Your task to perform on an android device: check the backup settings in the google photos Image 0: 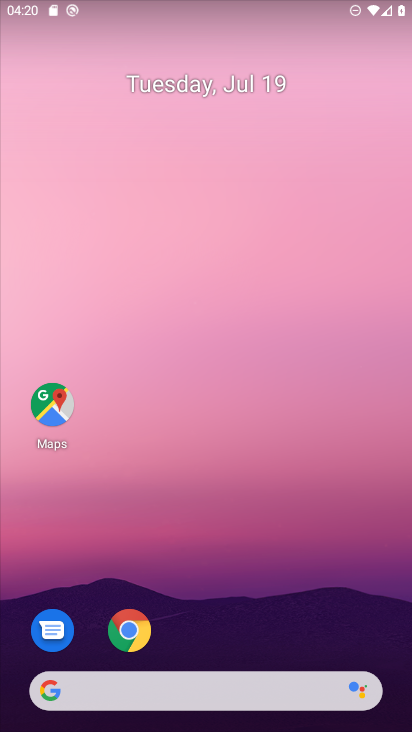
Step 0: drag from (250, 657) to (195, 239)
Your task to perform on an android device: check the backup settings in the google photos Image 1: 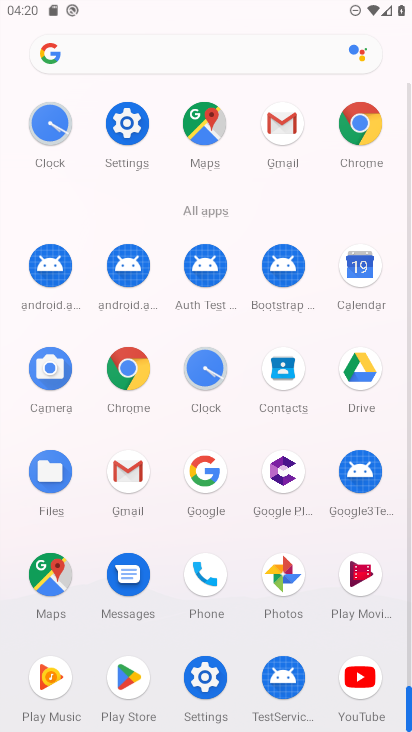
Step 1: click (279, 570)
Your task to perform on an android device: check the backup settings in the google photos Image 2: 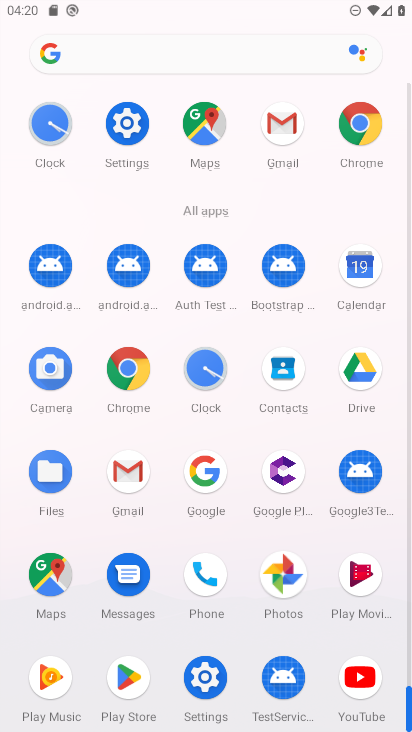
Step 2: click (281, 572)
Your task to perform on an android device: check the backup settings in the google photos Image 3: 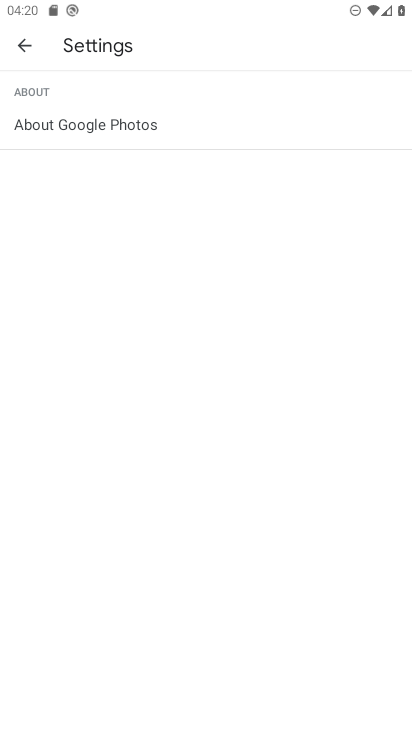
Step 3: click (30, 49)
Your task to perform on an android device: check the backup settings in the google photos Image 4: 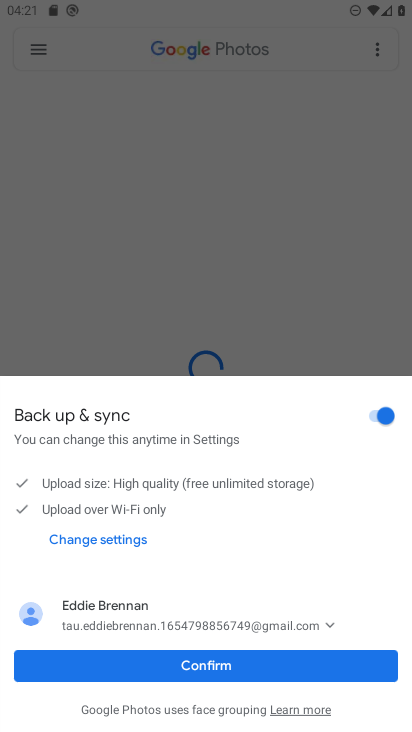
Step 4: click (140, 171)
Your task to perform on an android device: check the backup settings in the google photos Image 5: 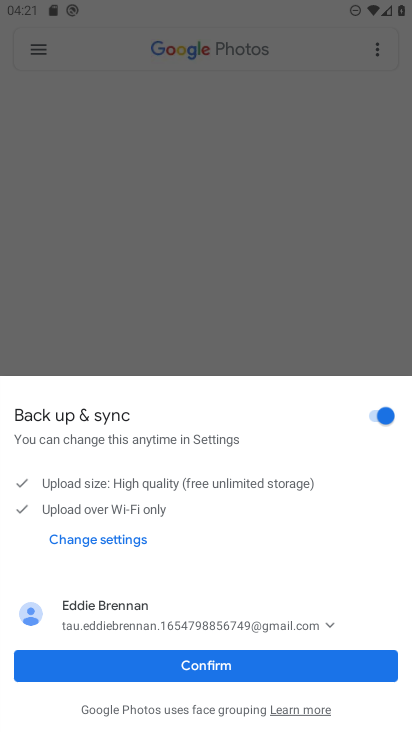
Step 5: click (153, 162)
Your task to perform on an android device: check the backup settings in the google photos Image 6: 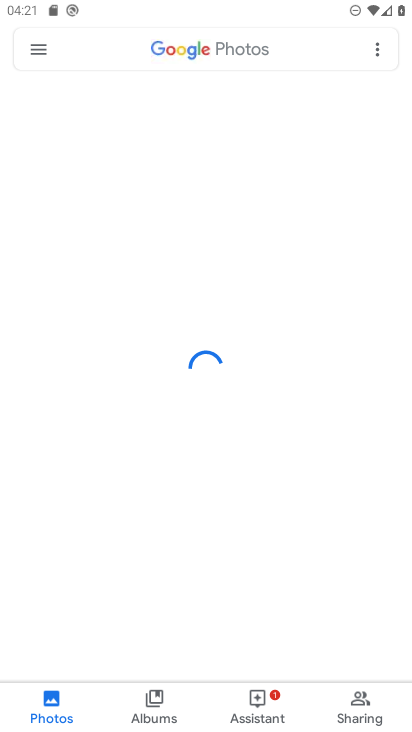
Step 6: click (162, 165)
Your task to perform on an android device: check the backup settings in the google photos Image 7: 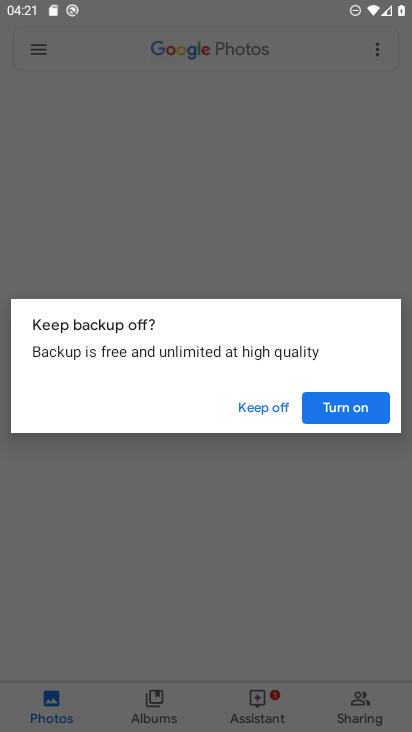
Step 7: click (162, 165)
Your task to perform on an android device: check the backup settings in the google photos Image 8: 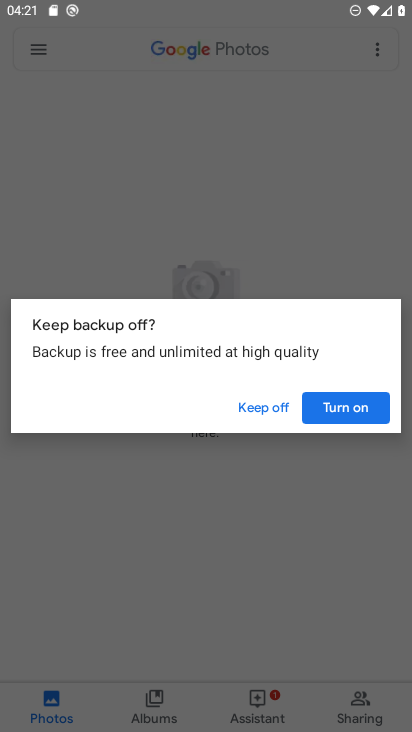
Step 8: click (170, 224)
Your task to perform on an android device: check the backup settings in the google photos Image 9: 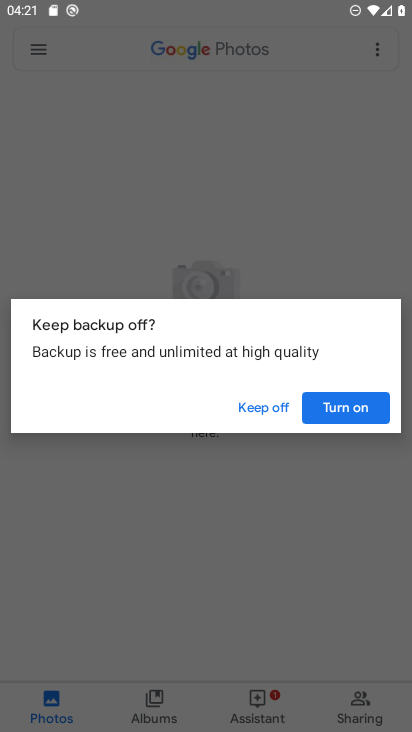
Step 9: click (200, 212)
Your task to perform on an android device: check the backup settings in the google photos Image 10: 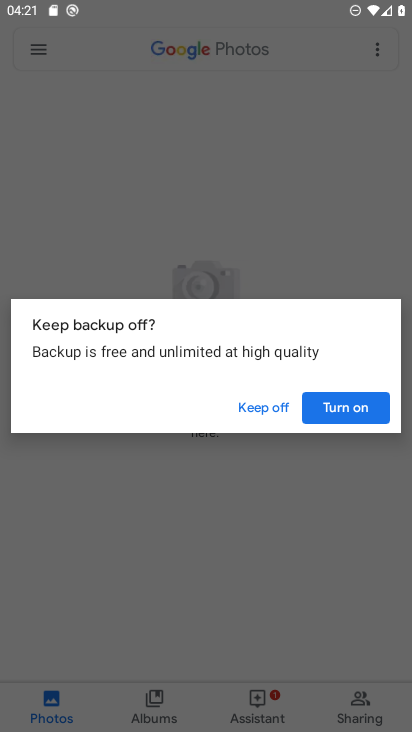
Step 10: click (247, 404)
Your task to perform on an android device: check the backup settings in the google photos Image 11: 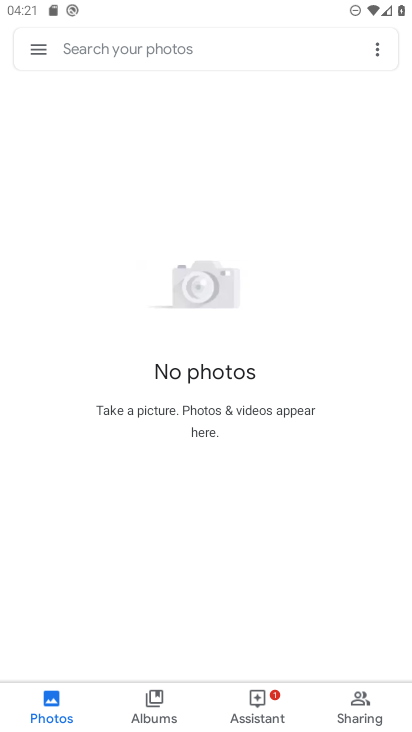
Step 11: click (41, 51)
Your task to perform on an android device: check the backup settings in the google photos Image 12: 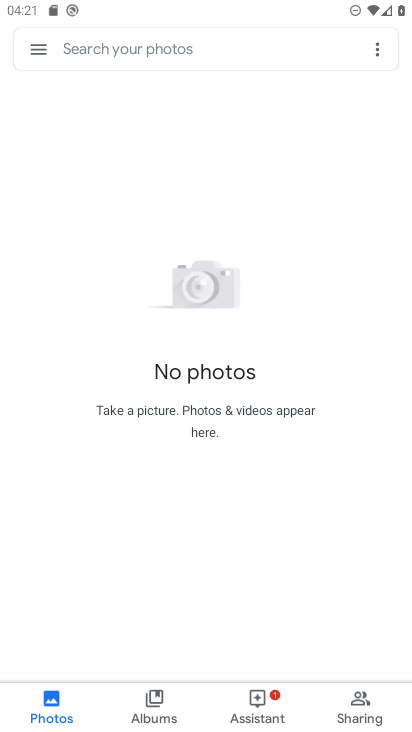
Step 12: click (40, 50)
Your task to perform on an android device: check the backup settings in the google photos Image 13: 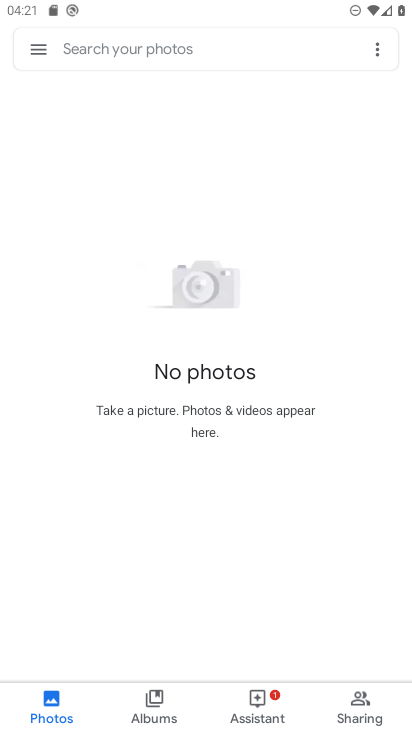
Step 13: click (45, 61)
Your task to perform on an android device: check the backup settings in the google photos Image 14: 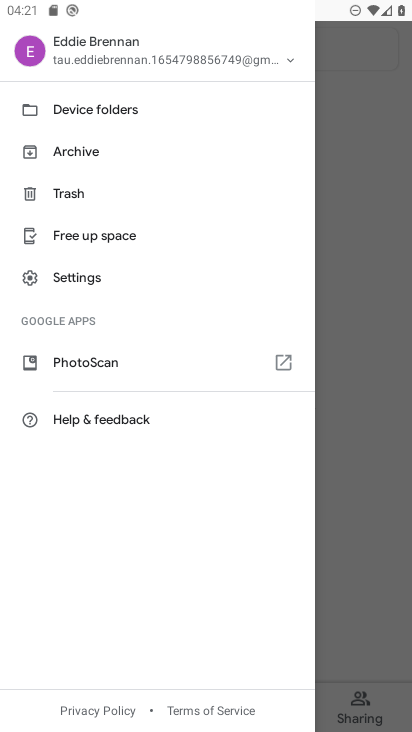
Step 14: click (75, 280)
Your task to perform on an android device: check the backup settings in the google photos Image 15: 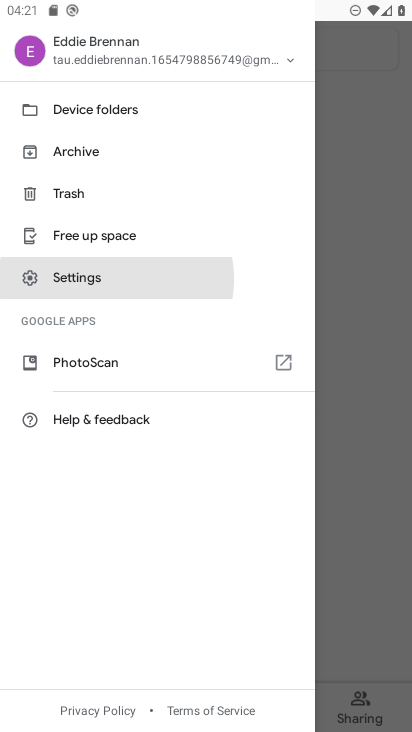
Step 15: click (85, 282)
Your task to perform on an android device: check the backup settings in the google photos Image 16: 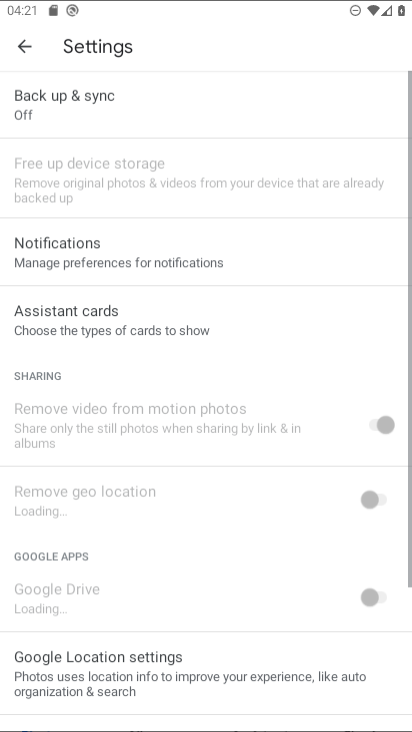
Step 16: click (77, 280)
Your task to perform on an android device: check the backup settings in the google photos Image 17: 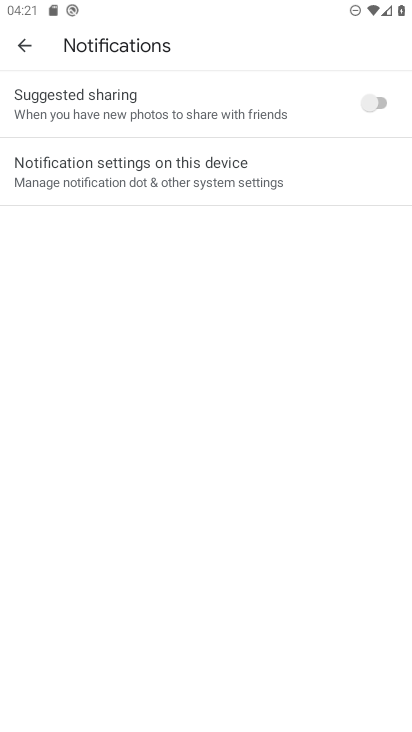
Step 17: click (53, 108)
Your task to perform on an android device: check the backup settings in the google photos Image 18: 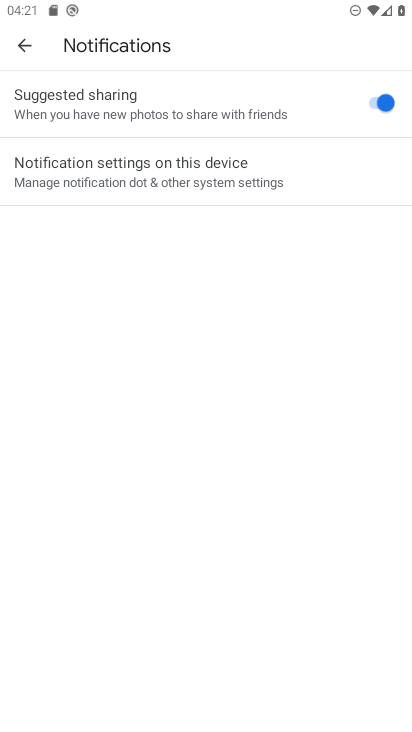
Step 18: click (24, 50)
Your task to perform on an android device: check the backup settings in the google photos Image 19: 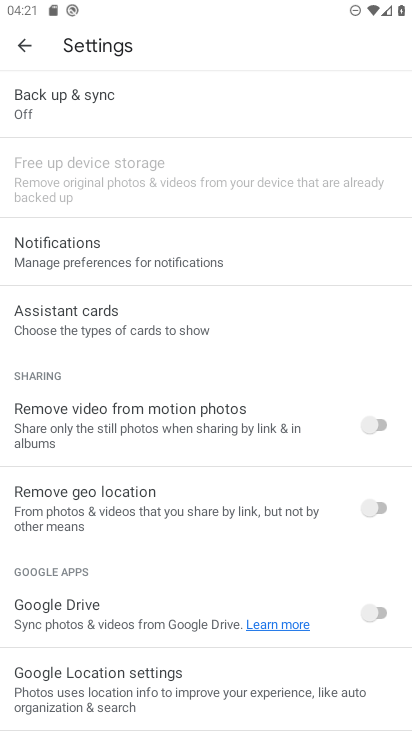
Step 19: click (73, 111)
Your task to perform on an android device: check the backup settings in the google photos Image 20: 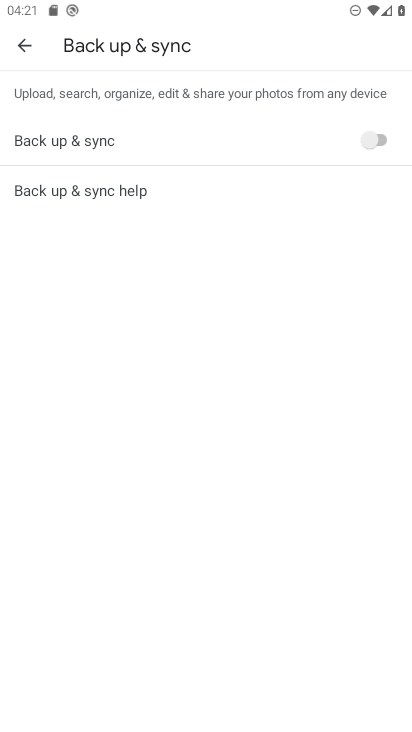
Step 20: click (100, 139)
Your task to perform on an android device: check the backup settings in the google photos Image 21: 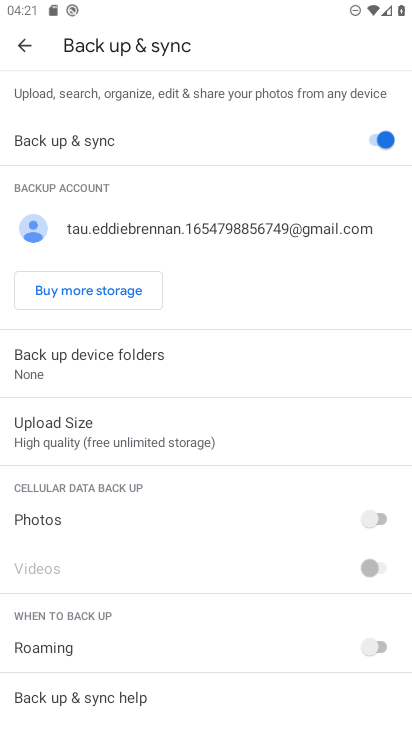
Step 21: click (62, 430)
Your task to perform on an android device: check the backup settings in the google photos Image 22: 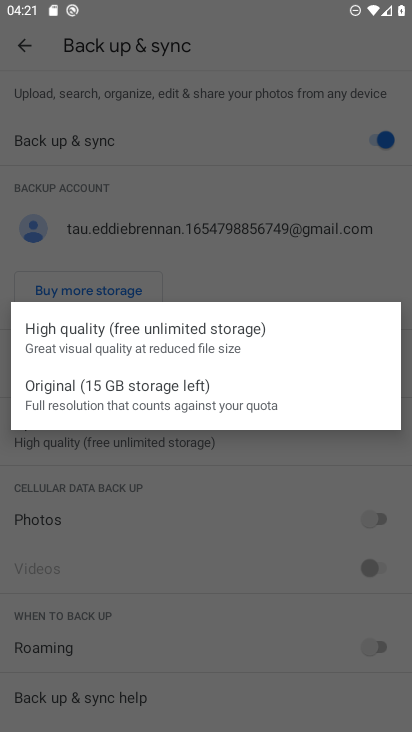
Step 22: click (88, 394)
Your task to perform on an android device: check the backup settings in the google photos Image 23: 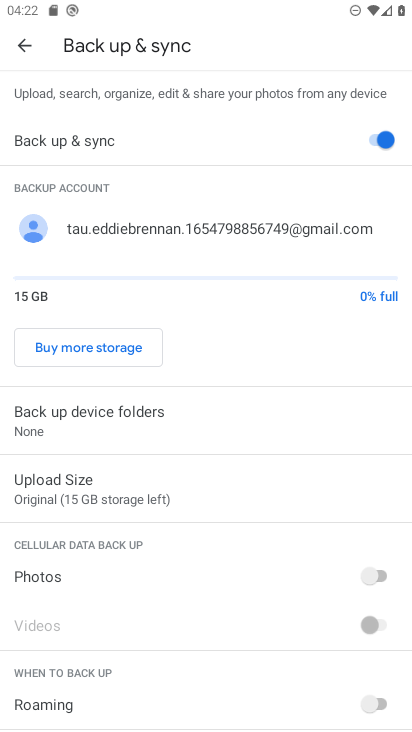
Step 23: task complete